Your task to perform on an android device: Open Google Image 0: 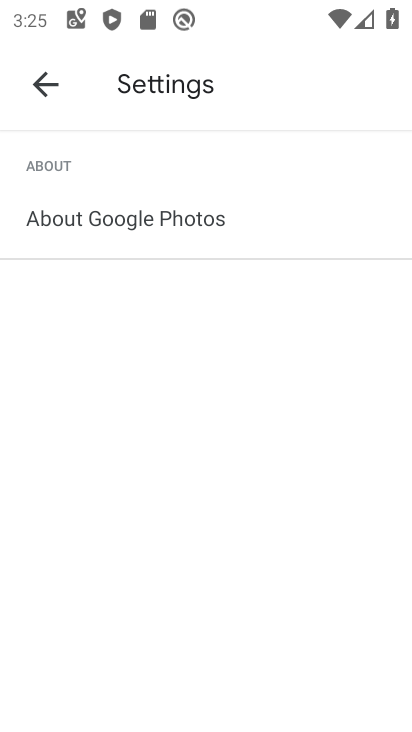
Step 0: press home button
Your task to perform on an android device: Open Google Image 1: 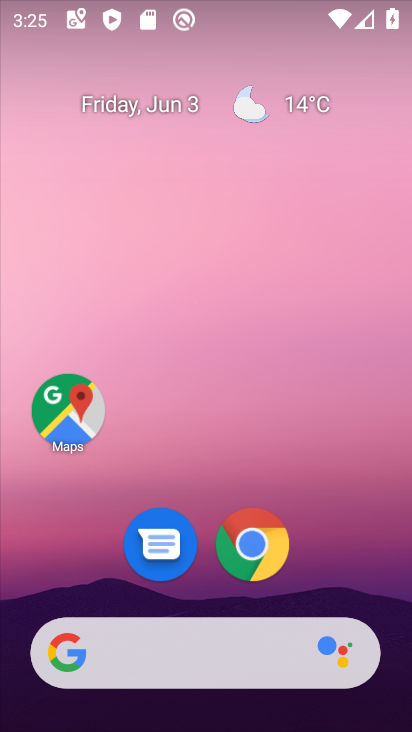
Step 1: click (249, 539)
Your task to perform on an android device: Open Google Image 2: 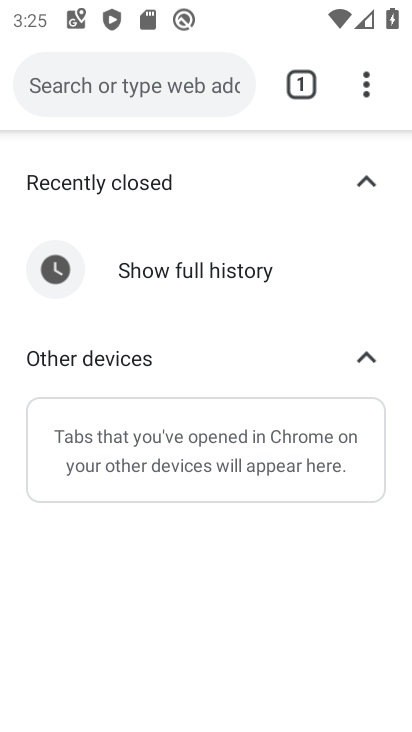
Step 2: task complete